Your task to perform on an android device: Go to Amazon Image 0: 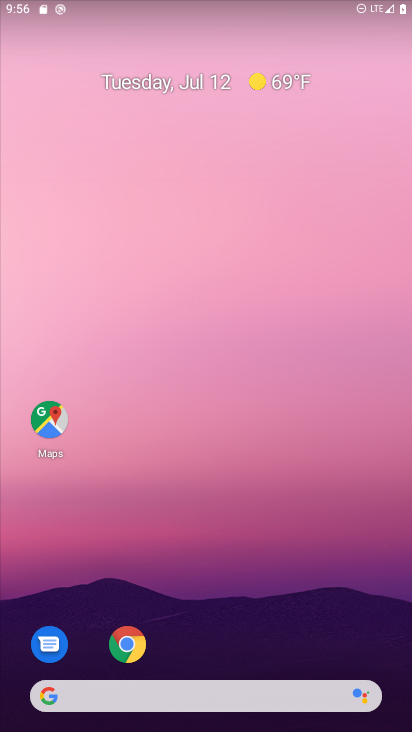
Step 0: click (124, 637)
Your task to perform on an android device: Go to Amazon Image 1: 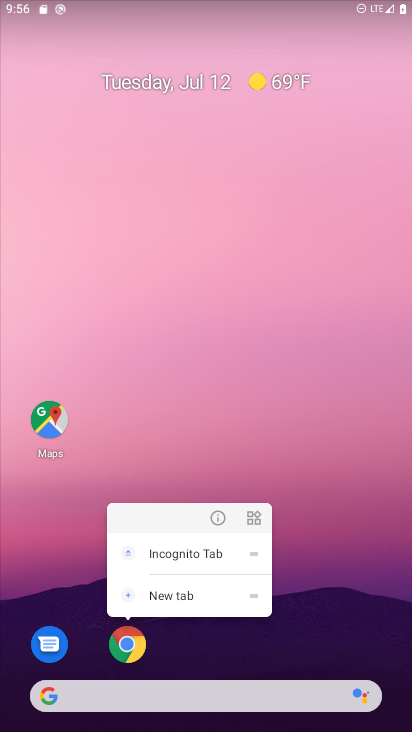
Step 1: click (127, 642)
Your task to perform on an android device: Go to Amazon Image 2: 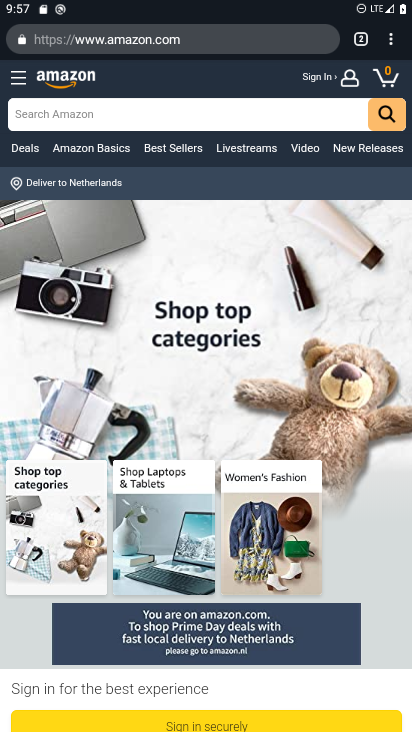
Step 2: task complete